Your task to perform on an android device: open app "TextNow: Call + Text Unlimited" (install if not already installed) Image 0: 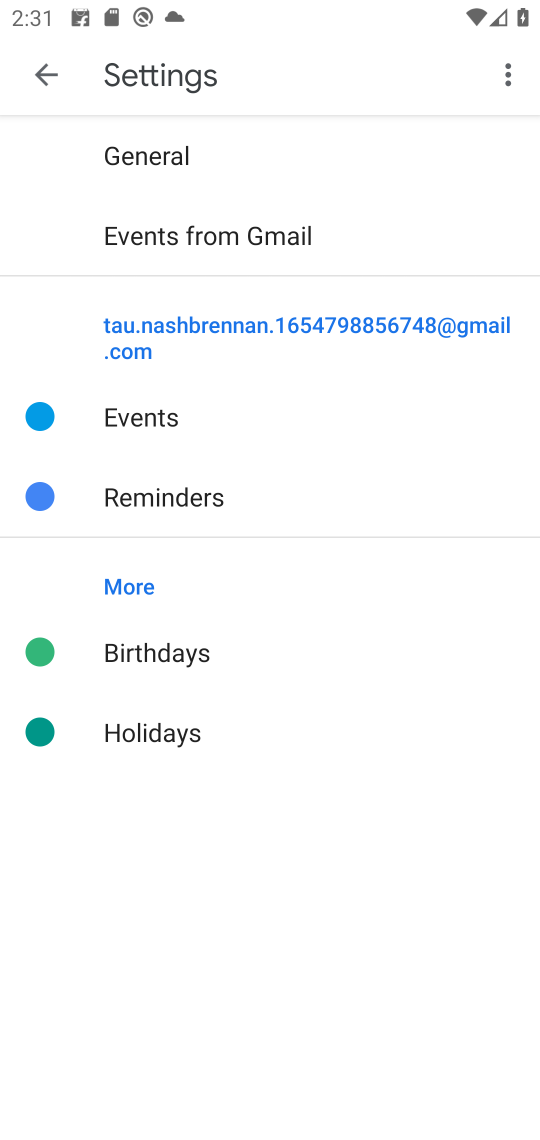
Step 0: press home button
Your task to perform on an android device: open app "TextNow: Call + Text Unlimited" (install if not already installed) Image 1: 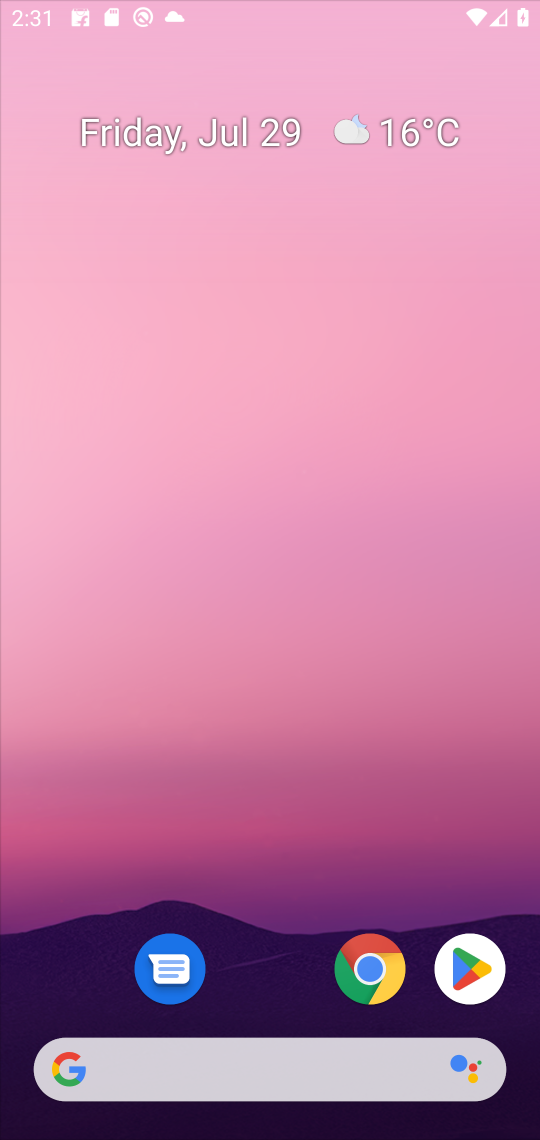
Step 1: press home button
Your task to perform on an android device: open app "TextNow: Call + Text Unlimited" (install if not already installed) Image 2: 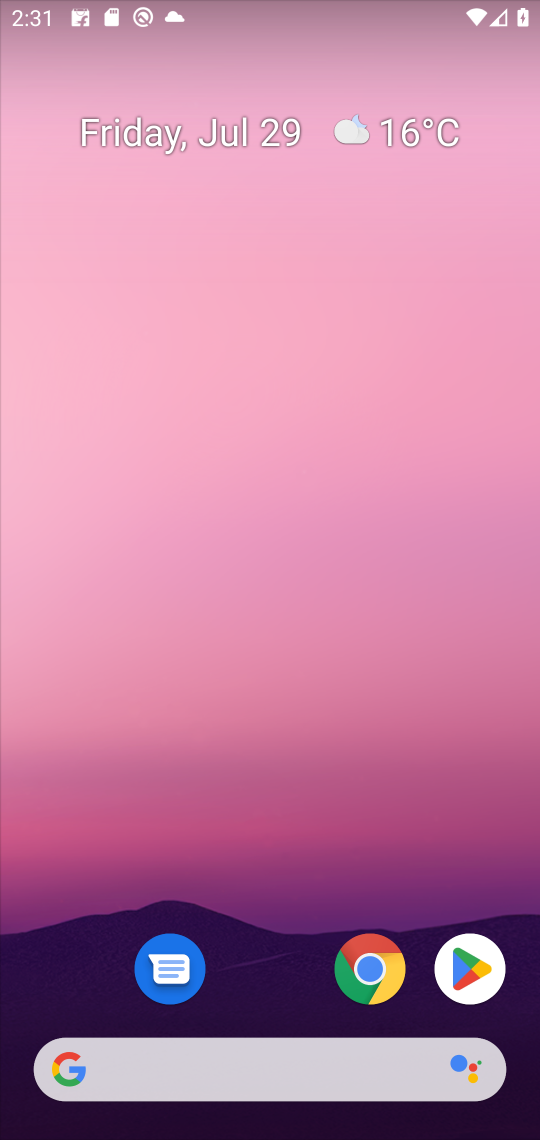
Step 2: click (465, 970)
Your task to perform on an android device: open app "TextNow: Call + Text Unlimited" (install if not already installed) Image 3: 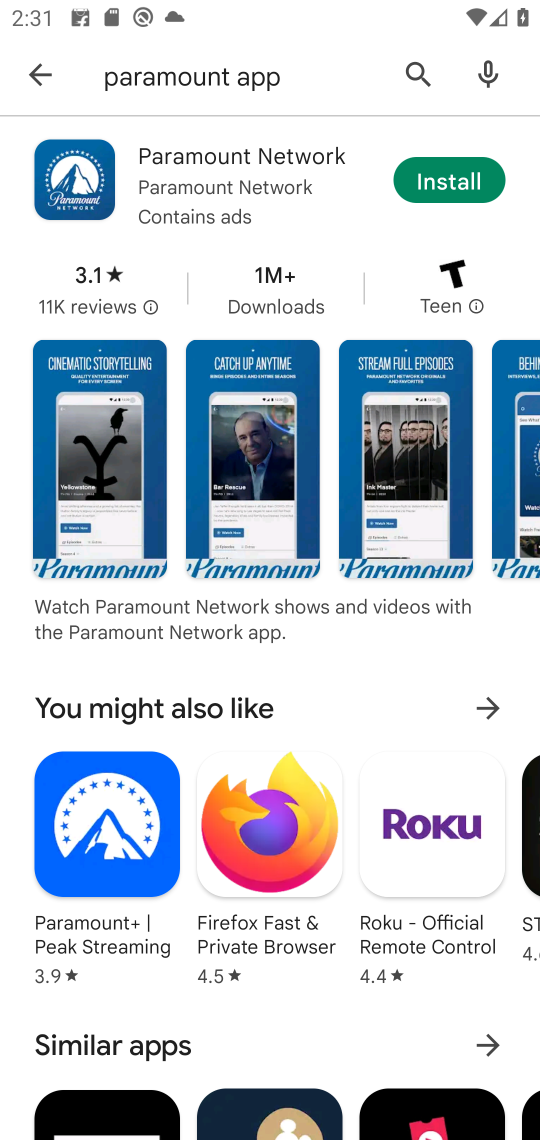
Step 3: click (415, 66)
Your task to perform on an android device: open app "TextNow: Call + Text Unlimited" (install if not already installed) Image 4: 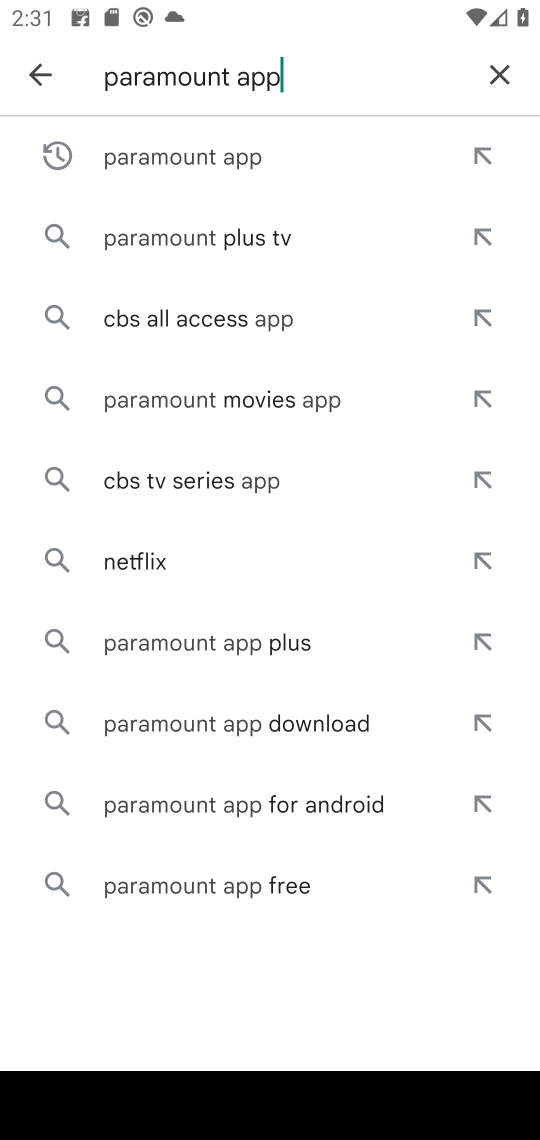
Step 4: click (493, 69)
Your task to perform on an android device: open app "TextNow: Call + Text Unlimited" (install if not already installed) Image 5: 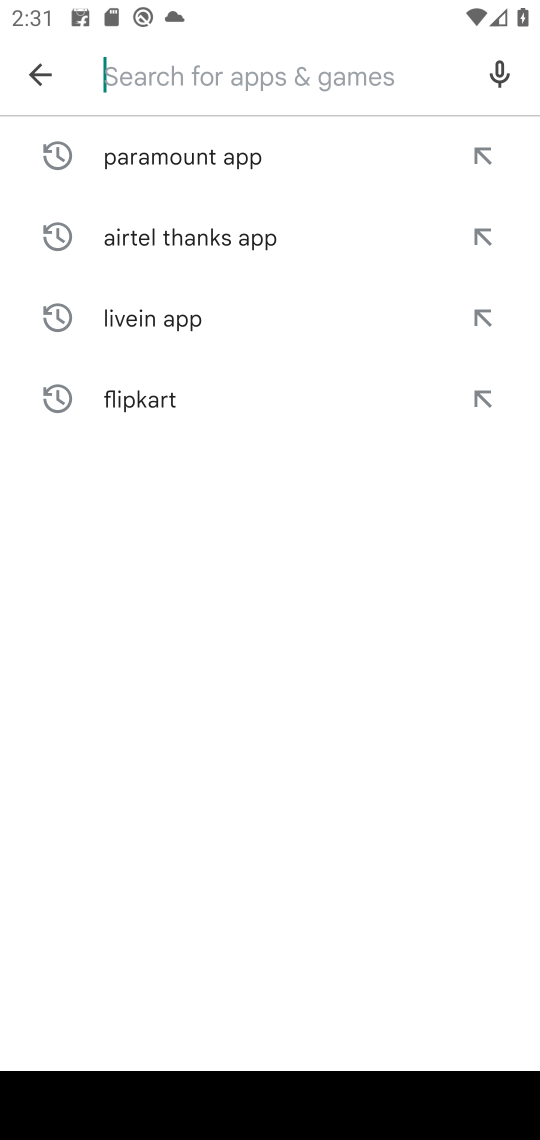
Step 5: type "textnow"
Your task to perform on an android device: open app "TextNow: Call + Text Unlimited" (install if not already installed) Image 6: 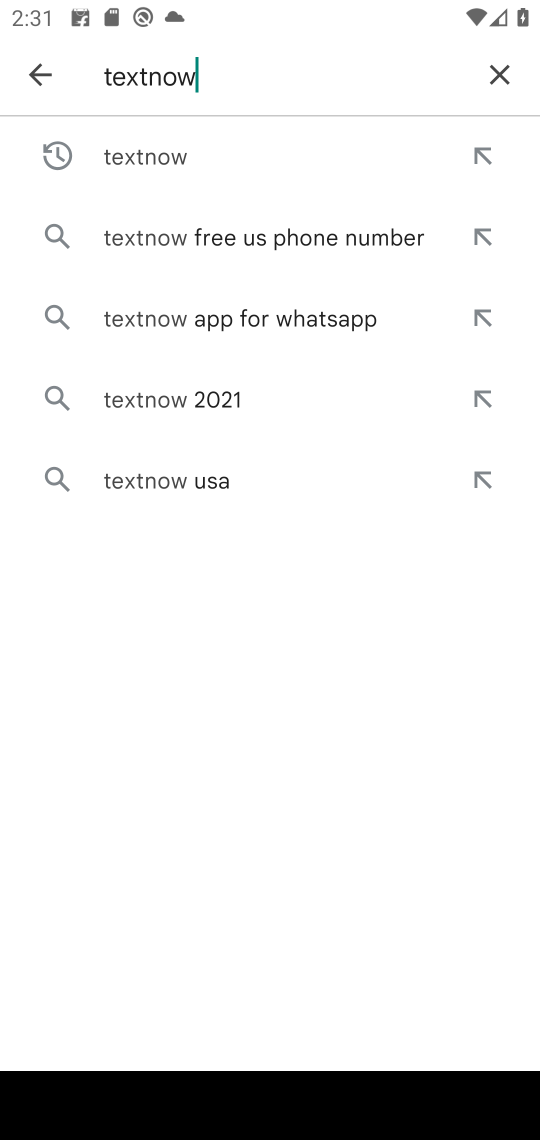
Step 6: click (159, 153)
Your task to perform on an android device: open app "TextNow: Call + Text Unlimited" (install if not already installed) Image 7: 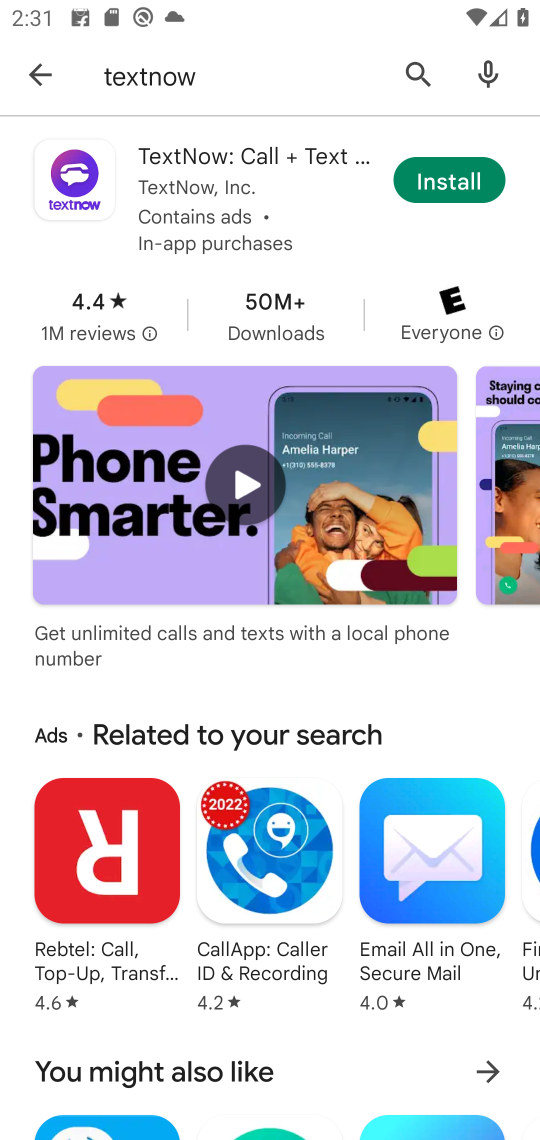
Step 7: click (439, 161)
Your task to perform on an android device: open app "TextNow: Call + Text Unlimited" (install if not already installed) Image 8: 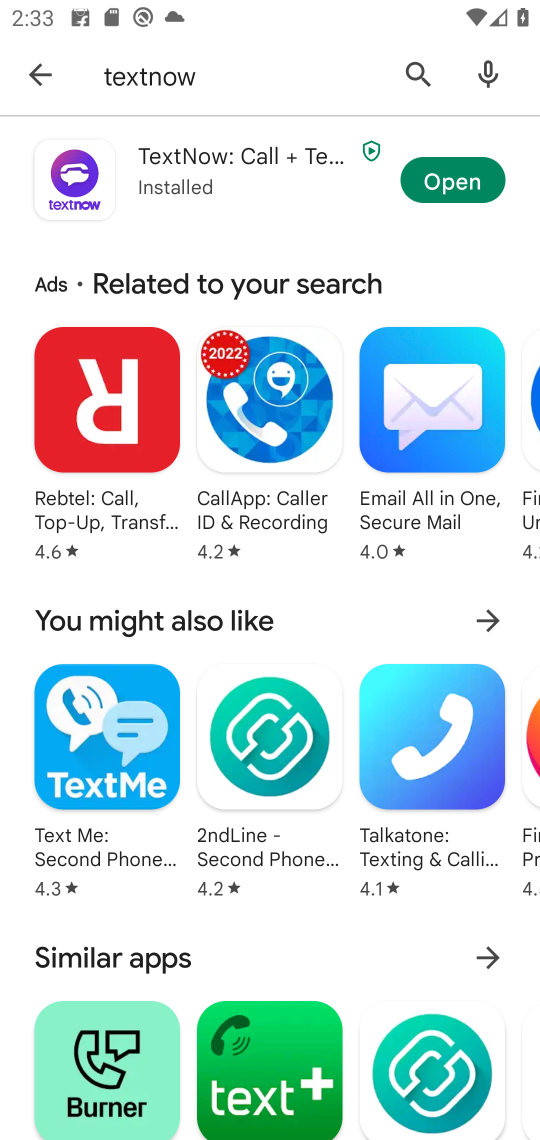
Step 8: click (431, 158)
Your task to perform on an android device: open app "TextNow: Call + Text Unlimited" (install if not already installed) Image 9: 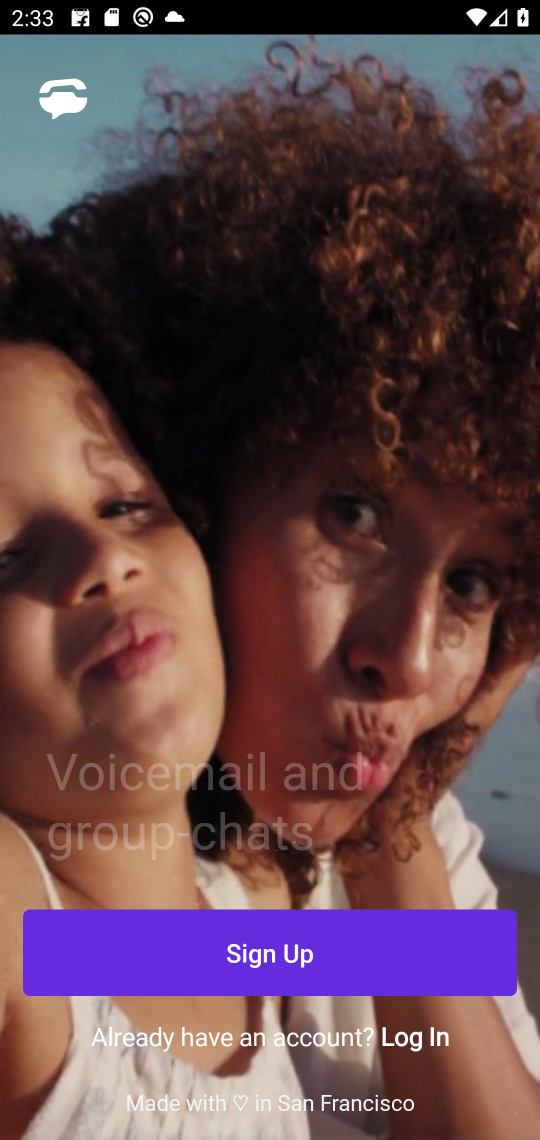
Step 9: task complete